Your task to perform on an android device: Open my contact list Image 0: 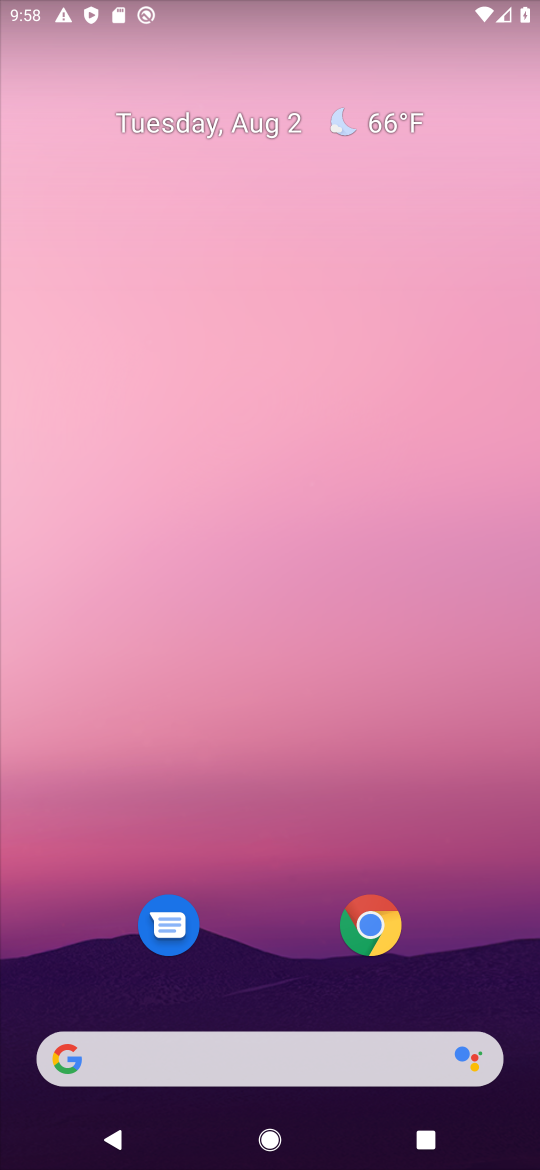
Step 0: drag from (497, 978) to (312, 104)
Your task to perform on an android device: Open my contact list Image 1: 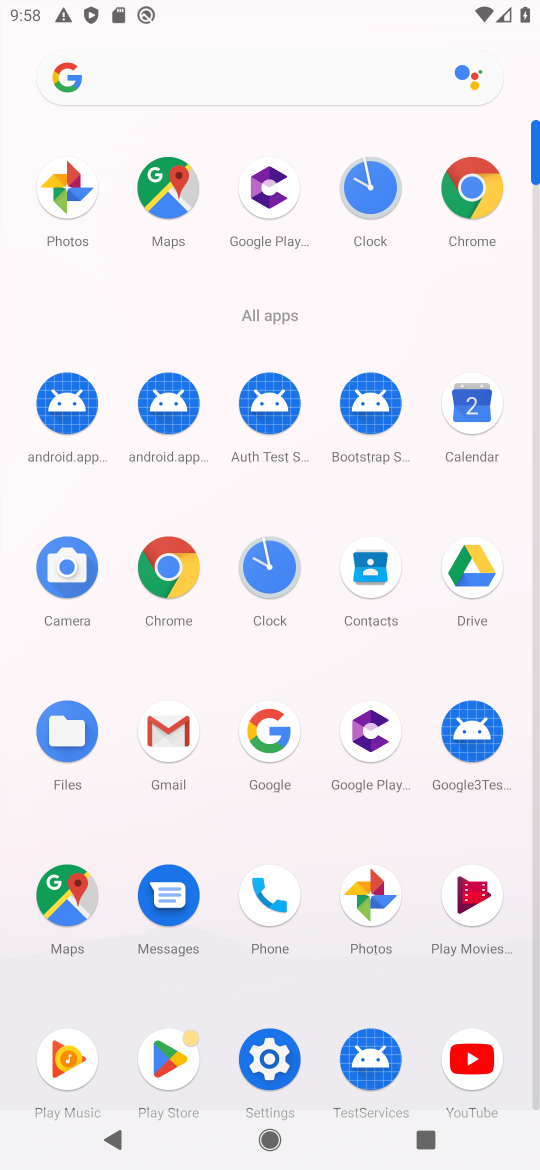
Step 1: click (370, 563)
Your task to perform on an android device: Open my contact list Image 2: 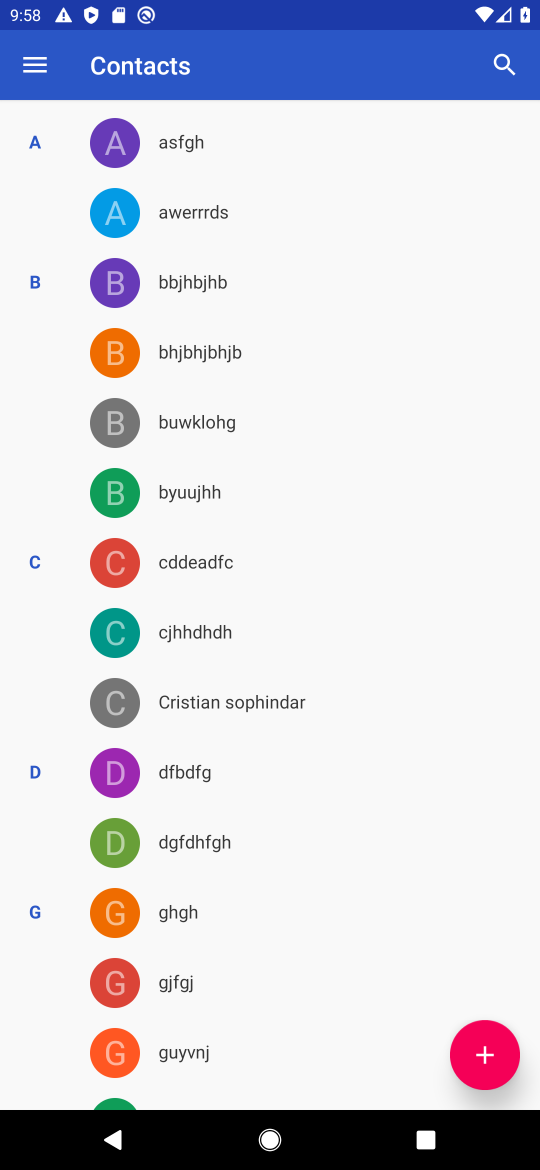
Step 2: task complete